Your task to perform on an android device: Open internet settings Image 0: 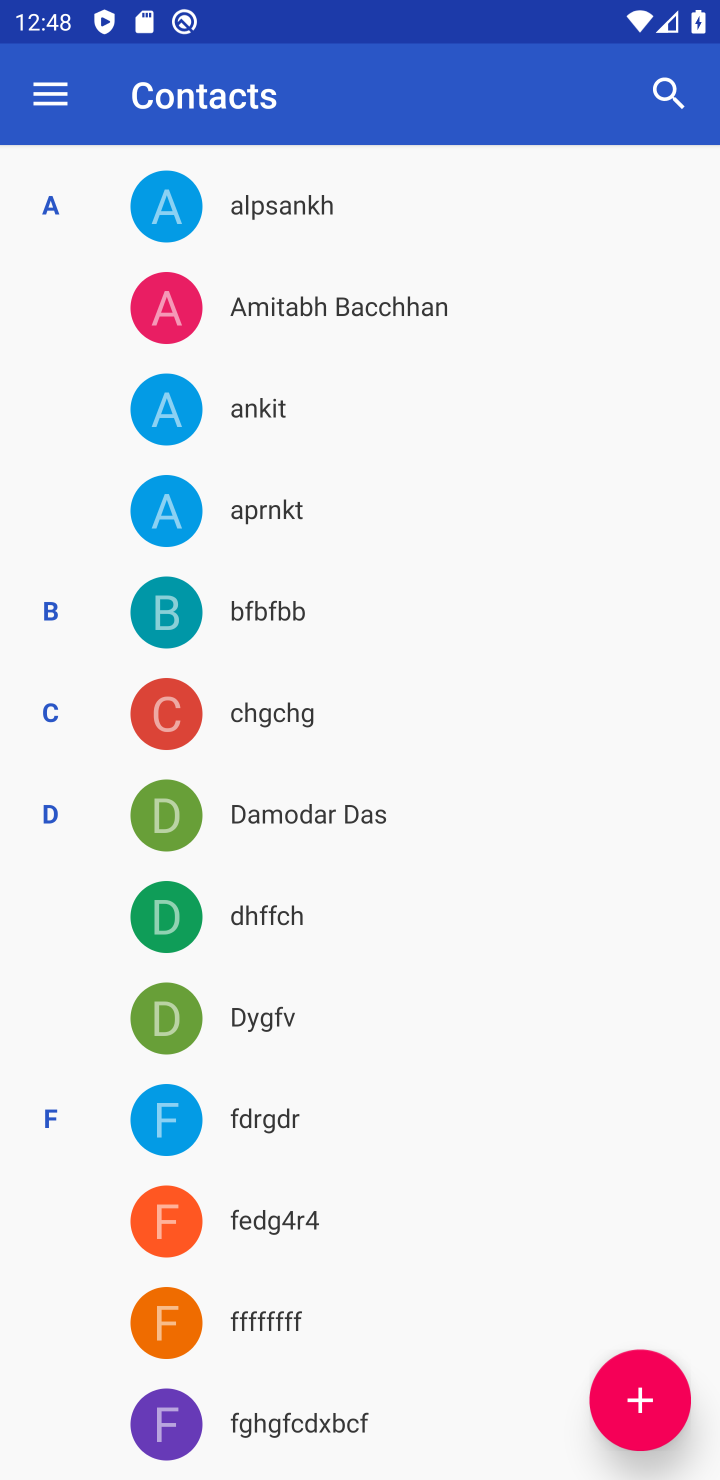
Step 0: press home button
Your task to perform on an android device: Open internet settings Image 1: 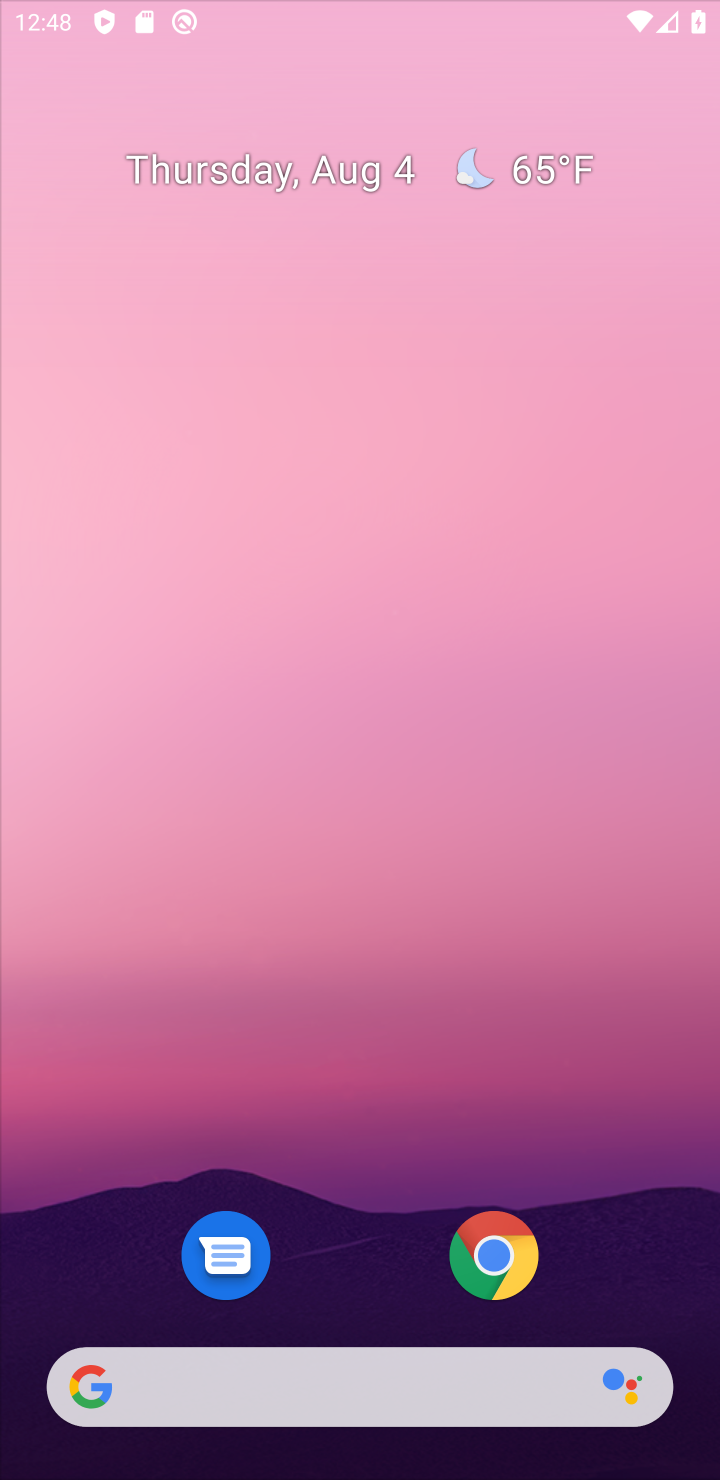
Step 1: click (460, 153)
Your task to perform on an android device: Open internet settings Image 2: 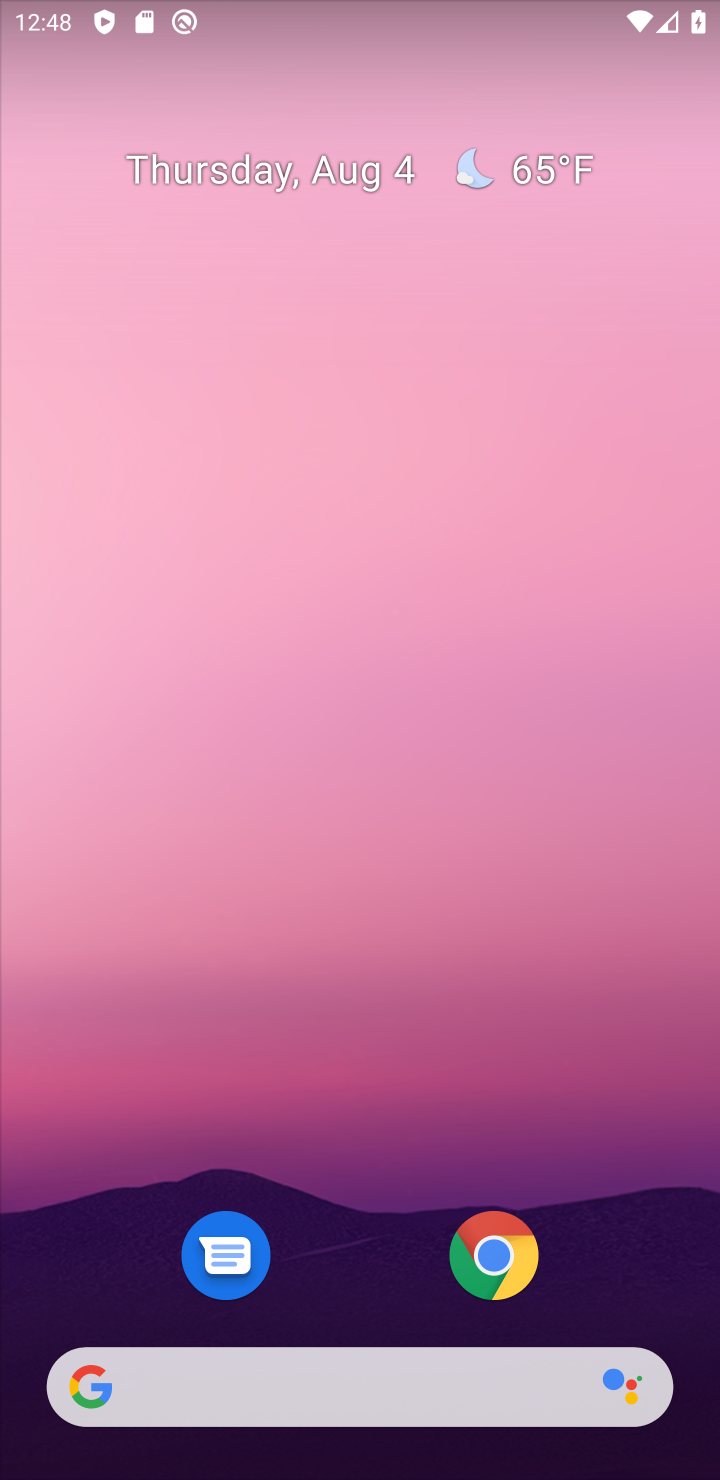
Step 2: drag from (435, 1224) to (556, 262)
Your task to perform on an android device: Open internet settings Image 3: 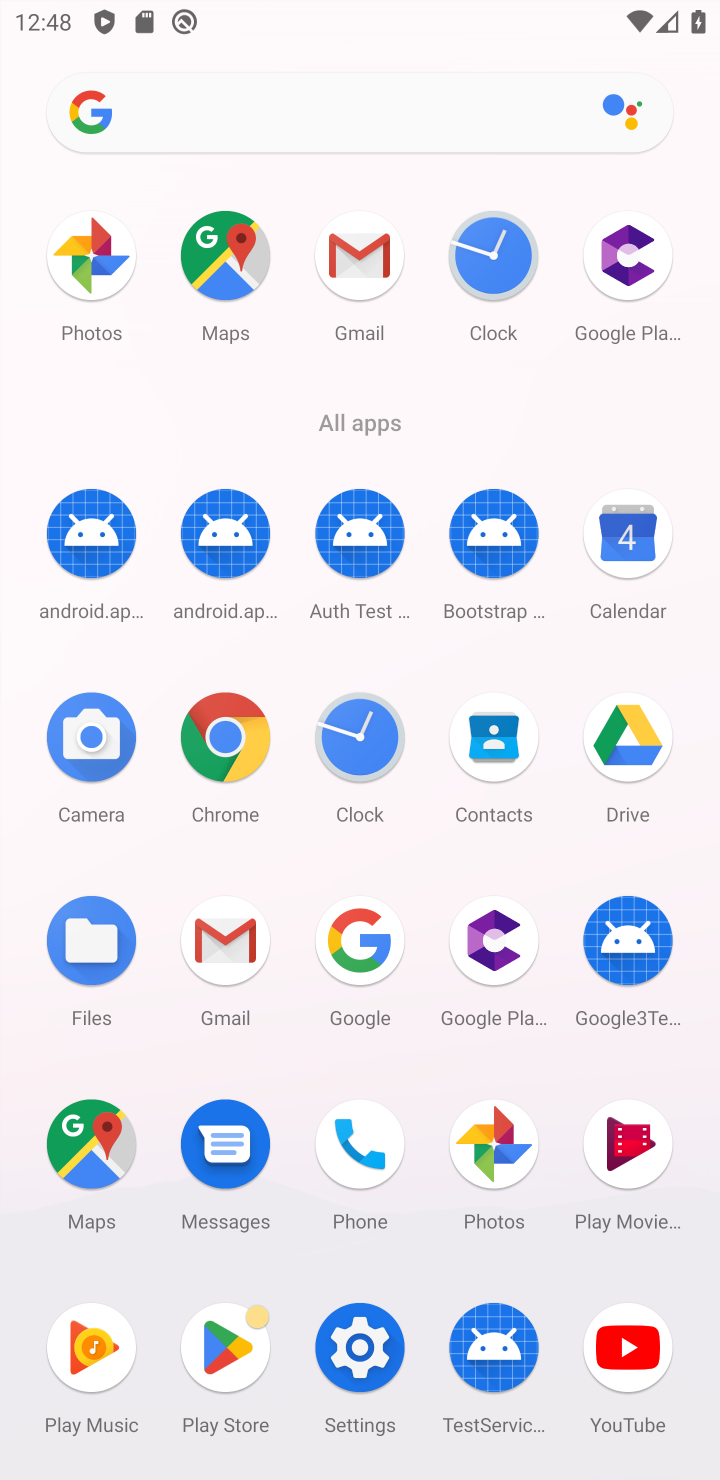
Step 3: drag from (449, 966) to (512, 63)
Your task to perform on an android device: Open internet settings Image 4: 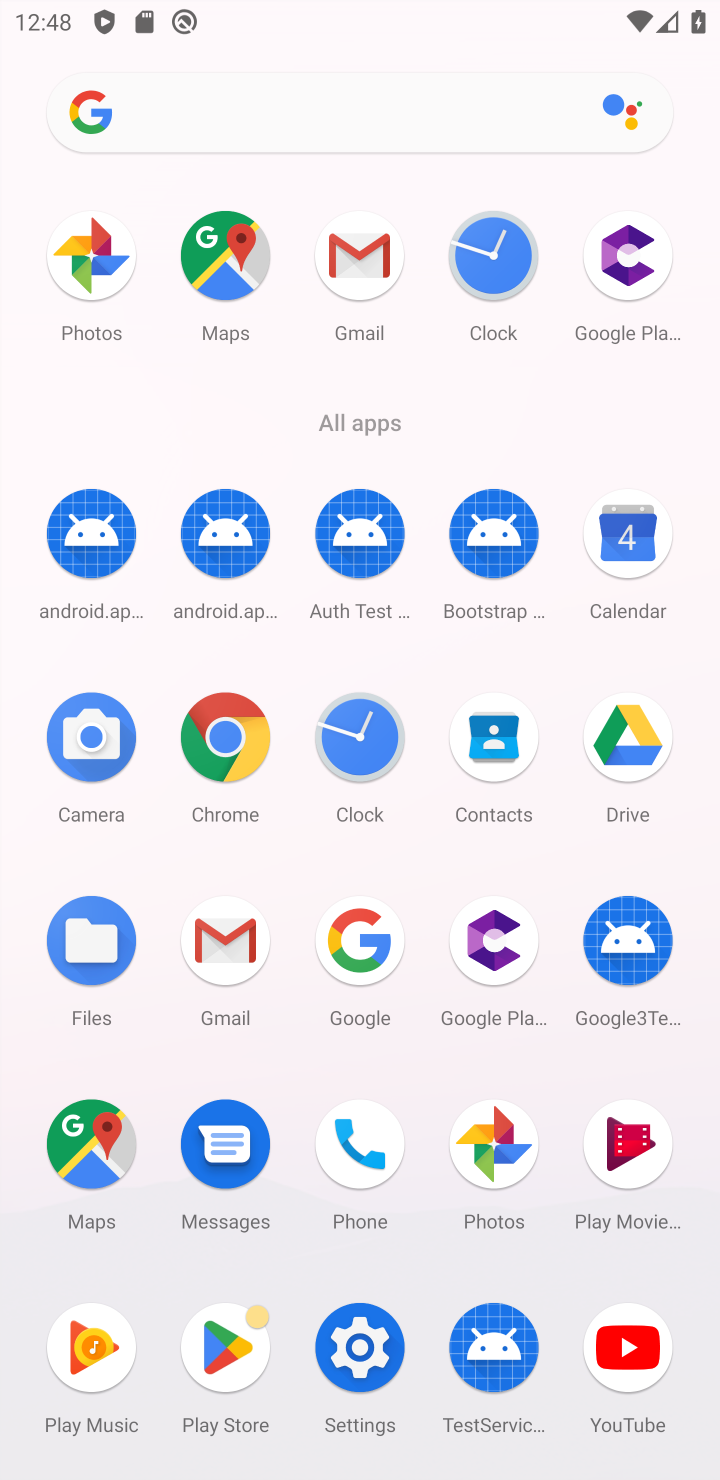
Step 4: click (362, 1353)
Your task to perform on an android device: Open internet settings Image 5: 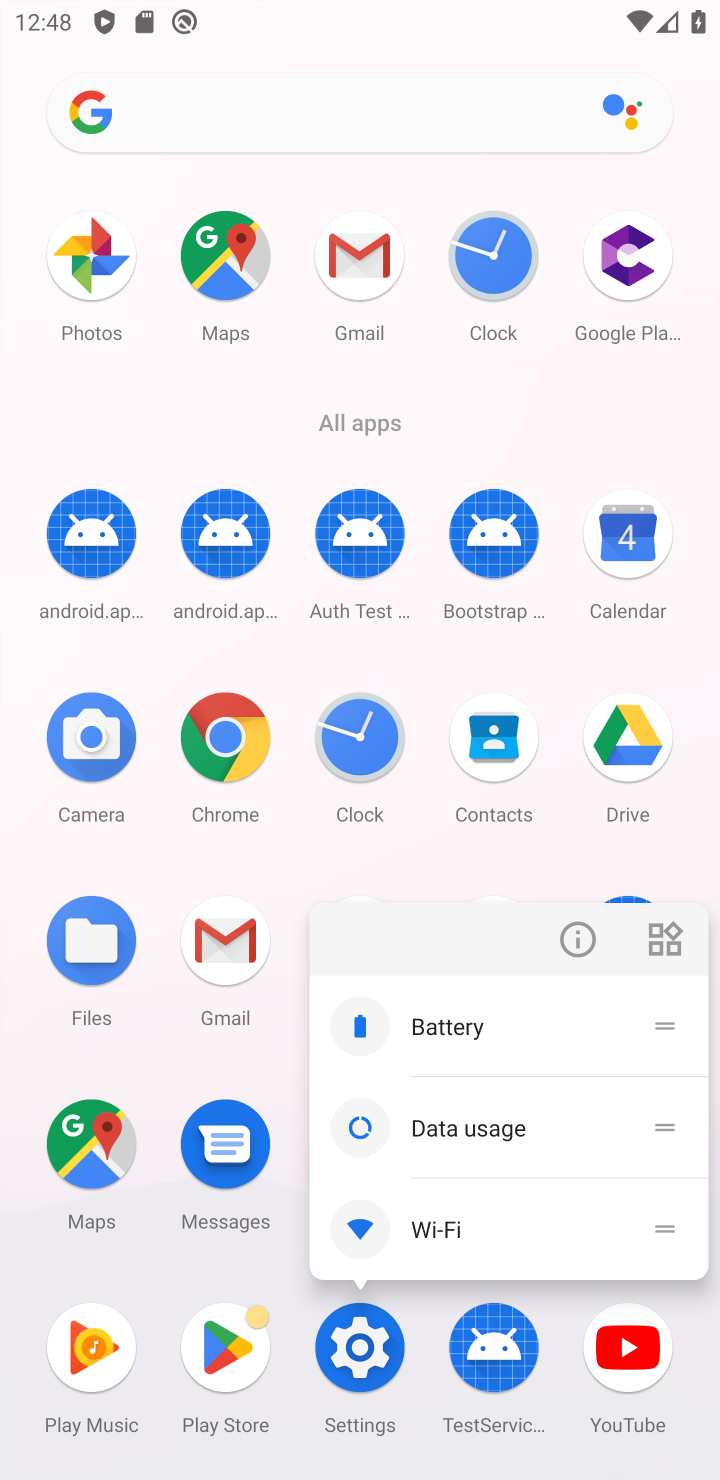
Step 5: click (360, 1347)
Your task to perform on an android device: Open internet settings Image 6: 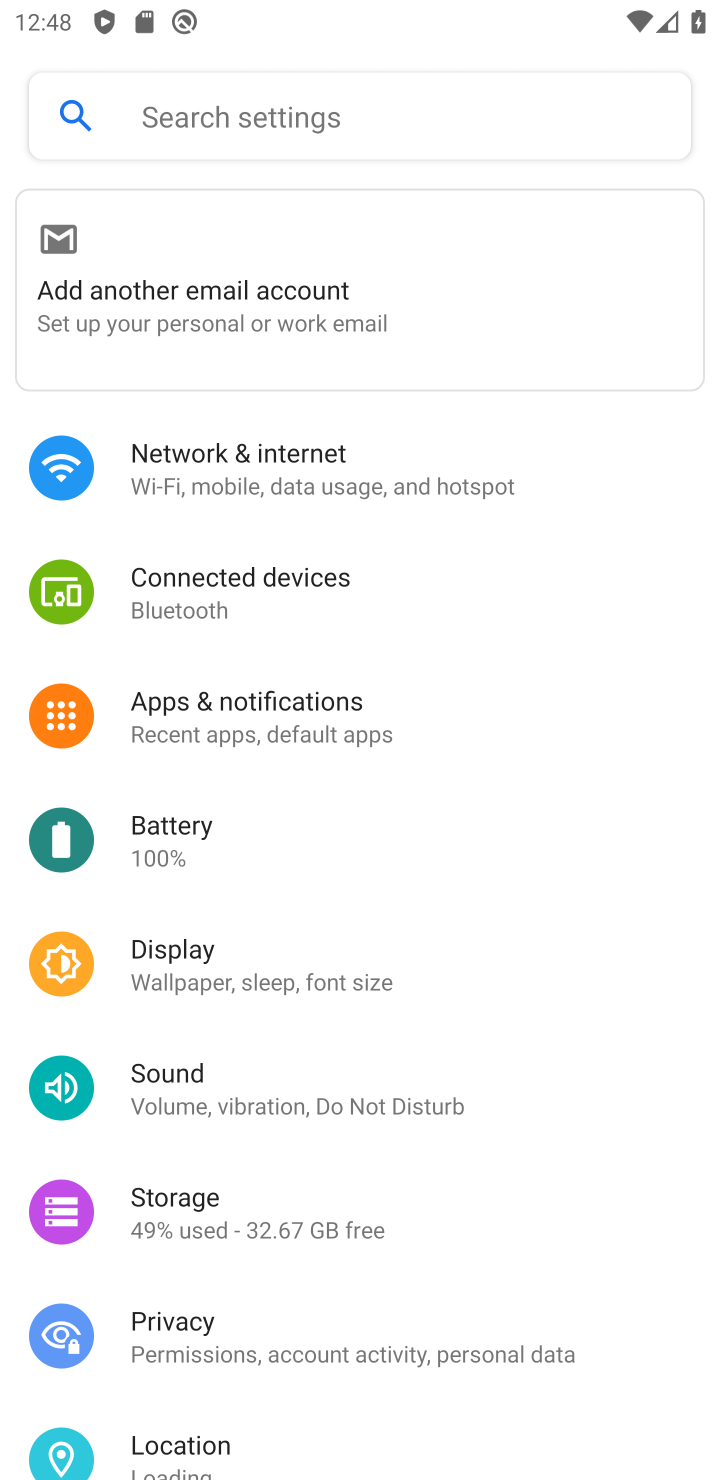
Step 6: click (275, 482)
Your task to perform on an android device: Open internet settings Image 7: 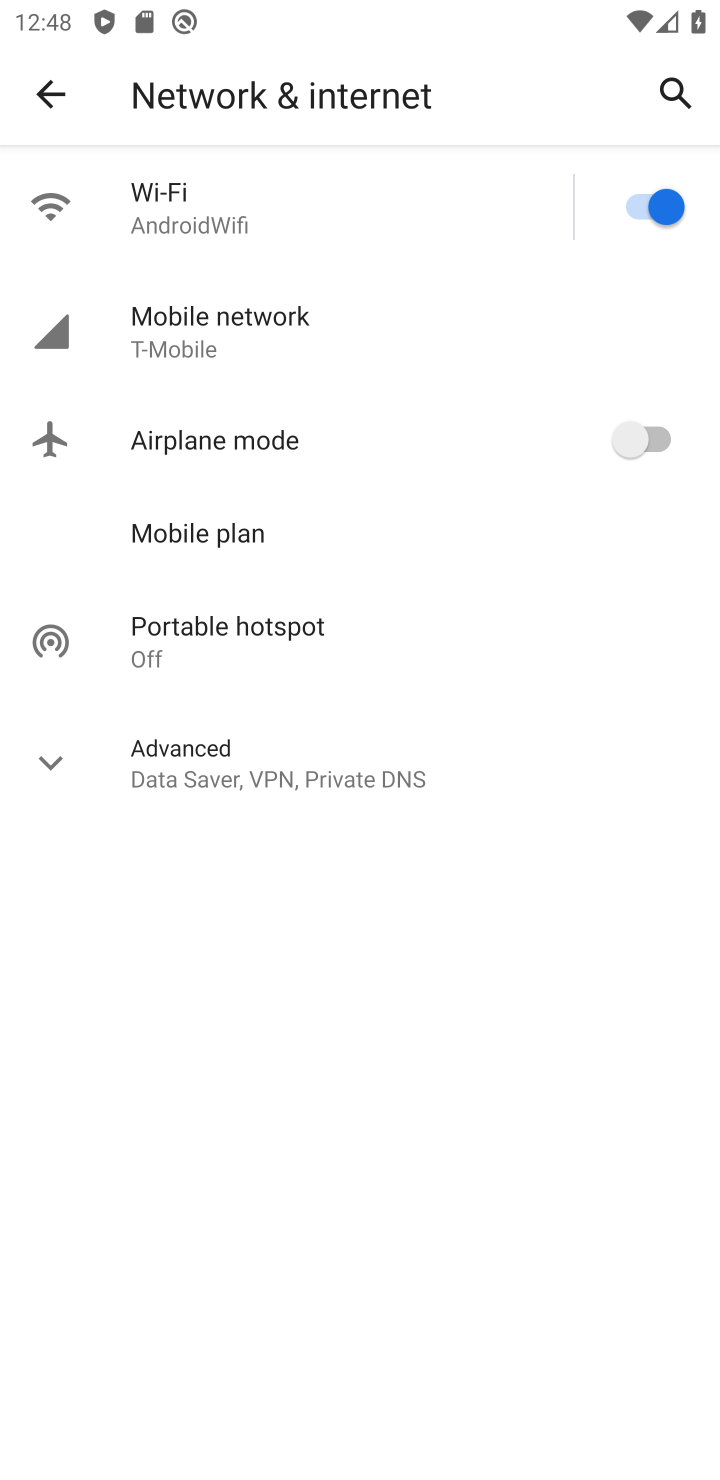
Step 7: task complete